Your task to perform on an android device: uninstall "Facebook Lite" Image 0: 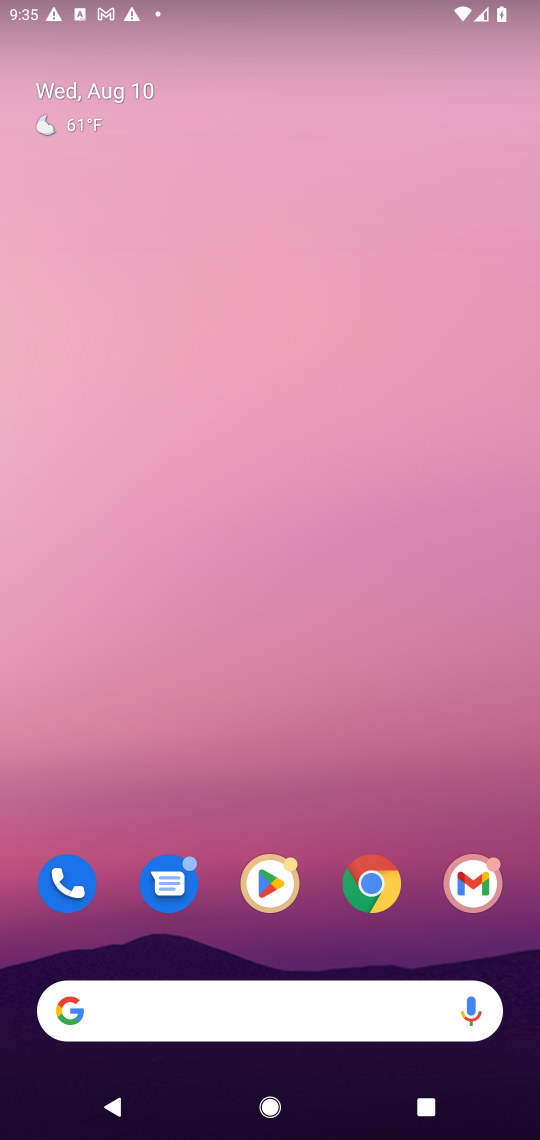
Step 0: click (253, 884)
Your task to perform on an android device: uninstall "Facebook Lite" Image 1: 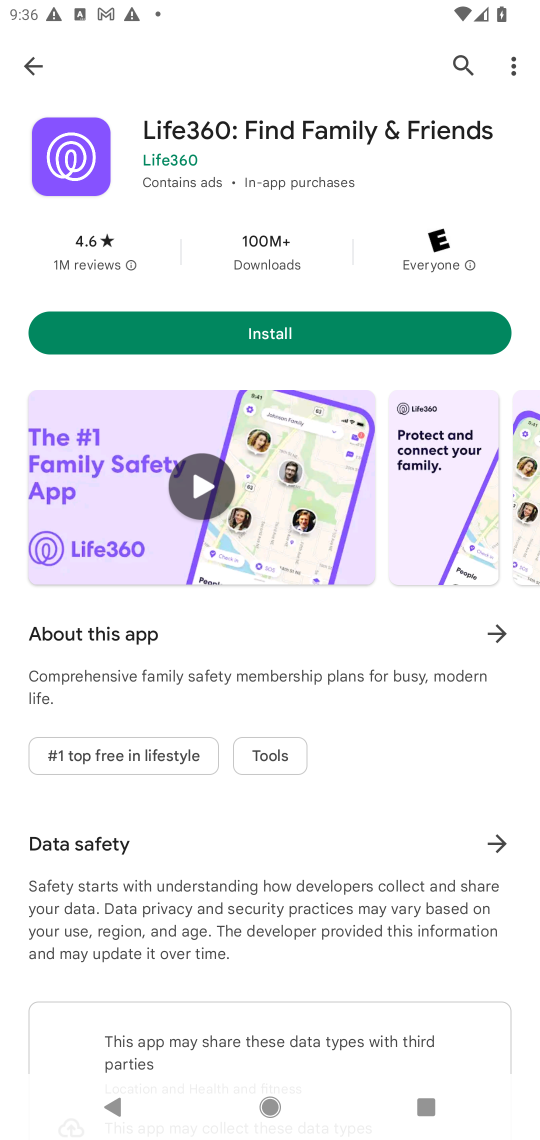
Step 1: click (455, 65)
Your task to perform on an android device: uninstall "Facebook Lite" Image 2: 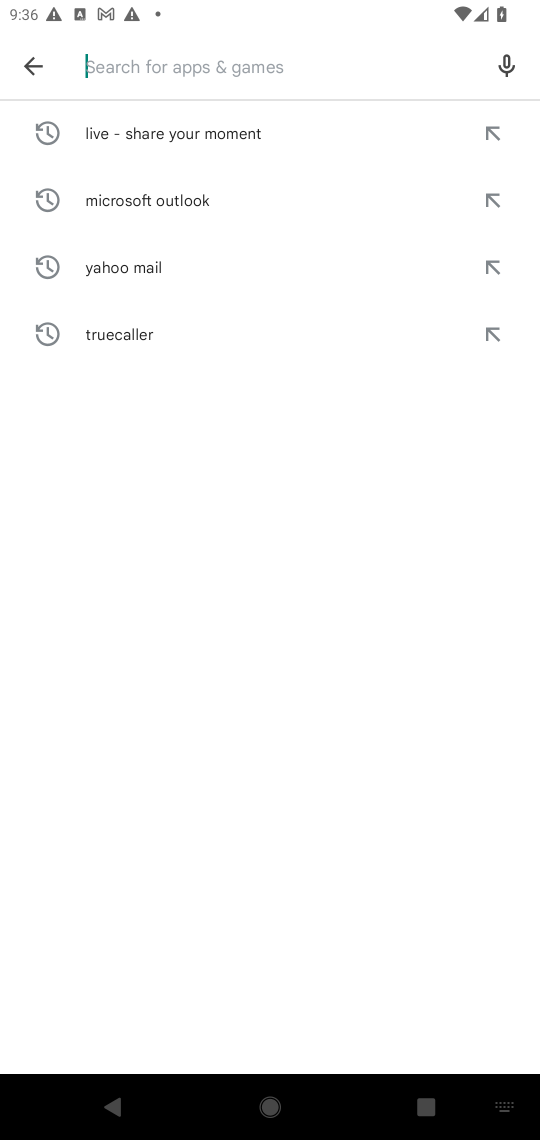
Step 2: type "Facebook Lite"
Your task to perform on an android device: uninstall "Facebook Lite" Image 3: 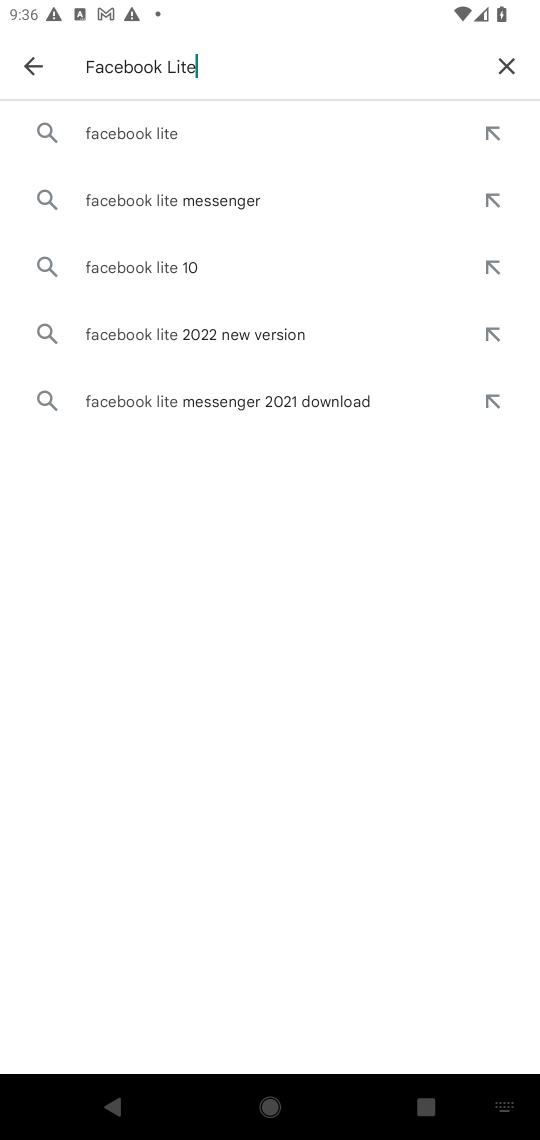
Step 3: click (167, 132)
Your task to perform on an android device: uninstall "Facebook Lite" Image 4: 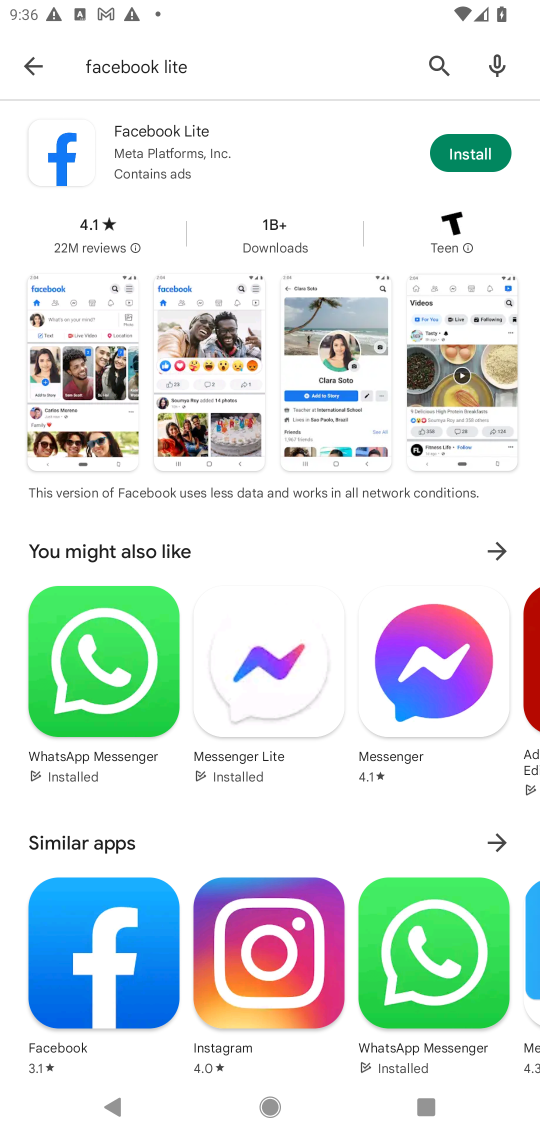
Step 4: task complete